Your task to perform on an android device: set an alarm Image 0: 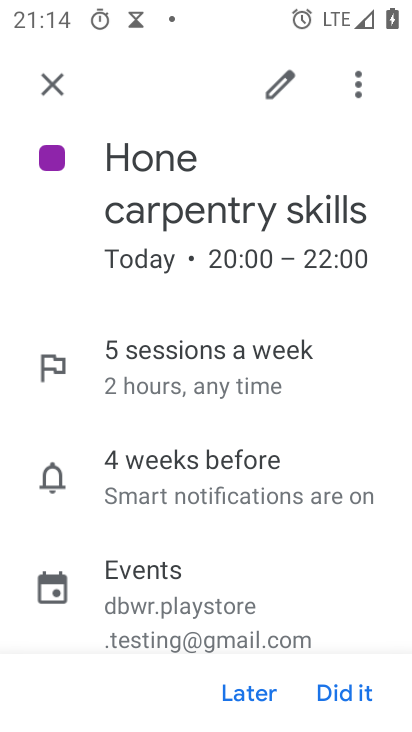
Step 0: press home button
Your task to perform on an android device: set an alarm Image 1: 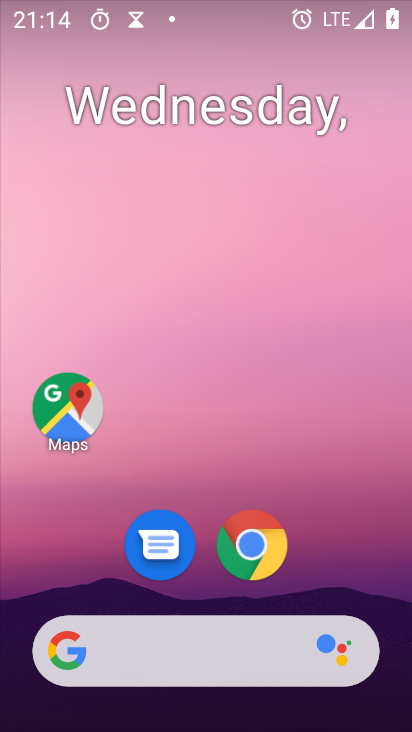
Step 1: drag from (312, 422) to (353, 260)
Your task to perform on an android device: set an alarm Image 2: 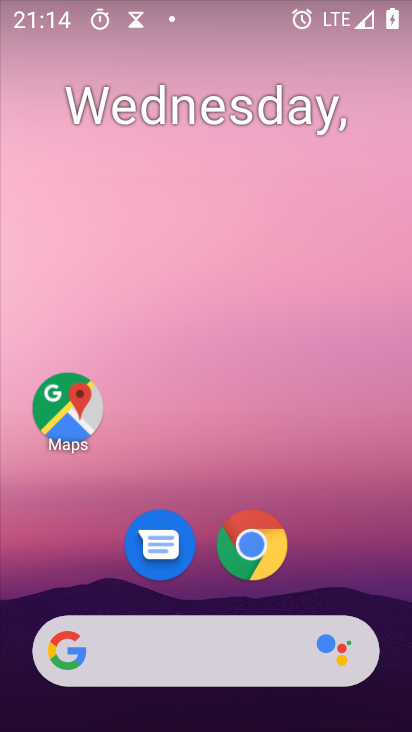
Step 2: drag from (195, 644) to (331, 260)
Your task to perform on an android device: set an alarm Image 3: 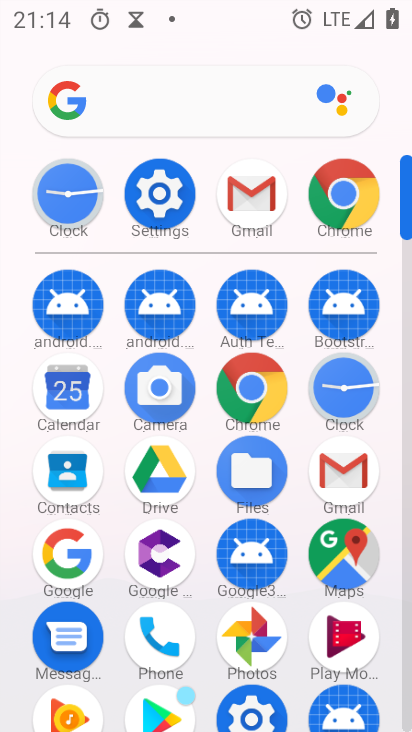
Step 3: click (332, 394)
Your task to perform on an android device: set an alarm Image 4: 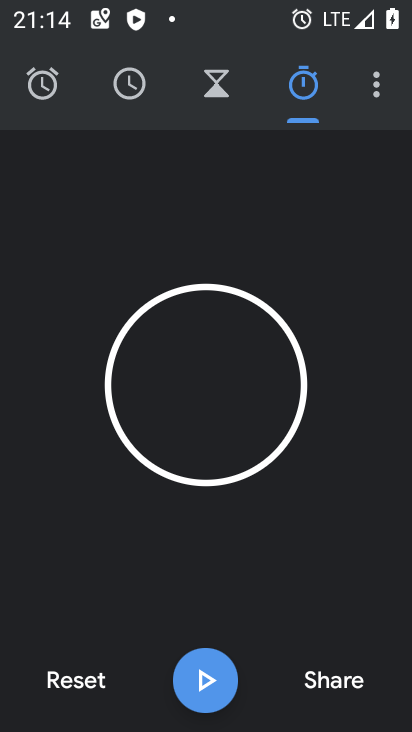
Step 4: click (40, 90)
Your task to perform on an android device: set an alarm Image 5: 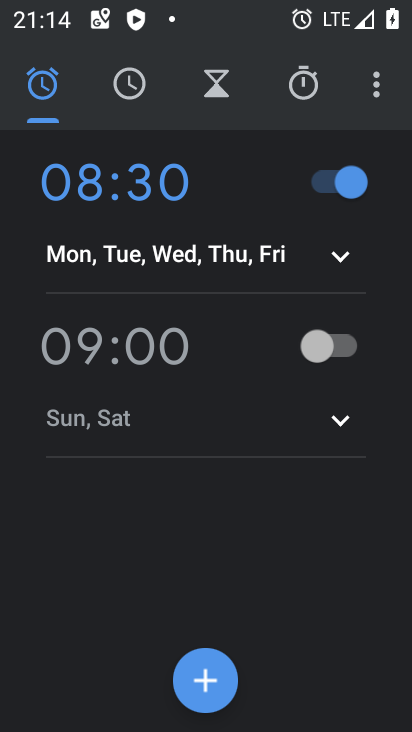
Step 5: click (340, 346)
Your task to perform on an android device: set an alarm Image 6: 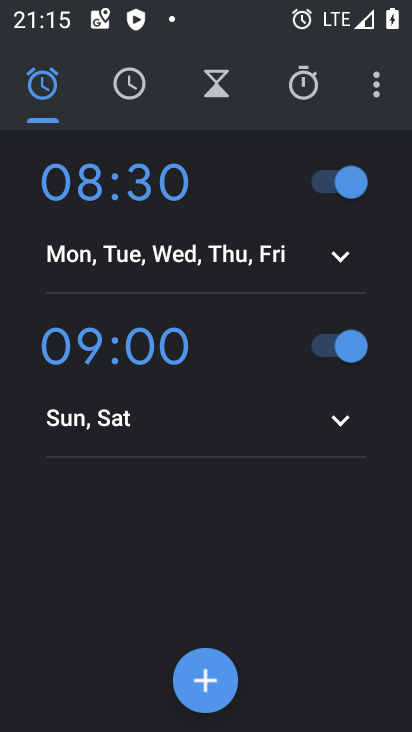
Step 6: task complete